Your task to perform on an android device: Search for usb-c to usb-a on ebay.com, select the first entry, and add it to the cart. Image 0: 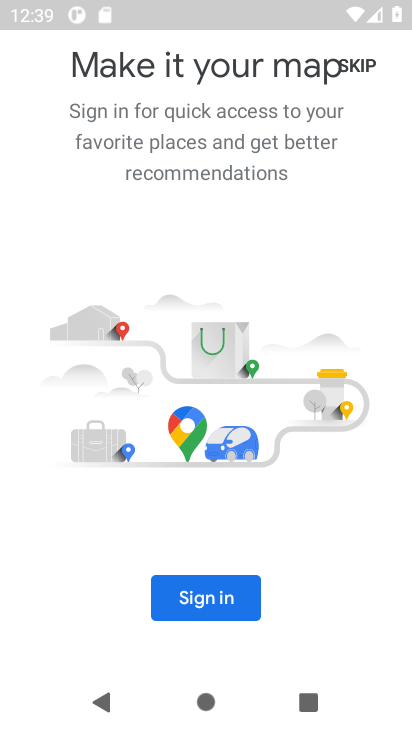
Step 0: press home button
Your task to perform on an android device: Search for usb-c to usb-a on ebay.com, select the first entry, and add it to the cart. Image 1: 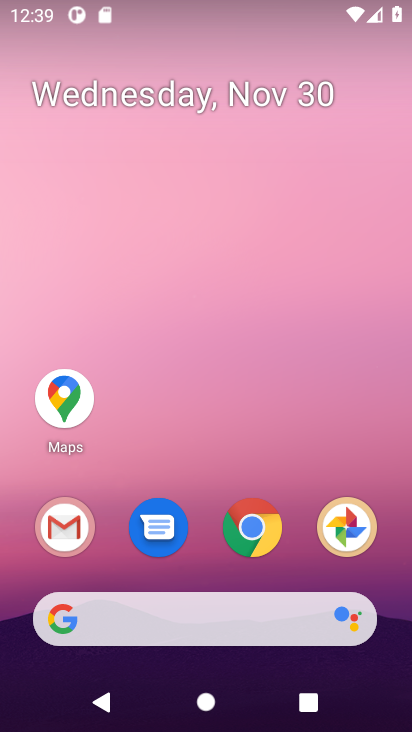
Step 1: click (232, 607)
Your task to perform on an android device: Search for usb-c to usb-a on ebay.com, select the first entry, and add it to the cart. Image 2: 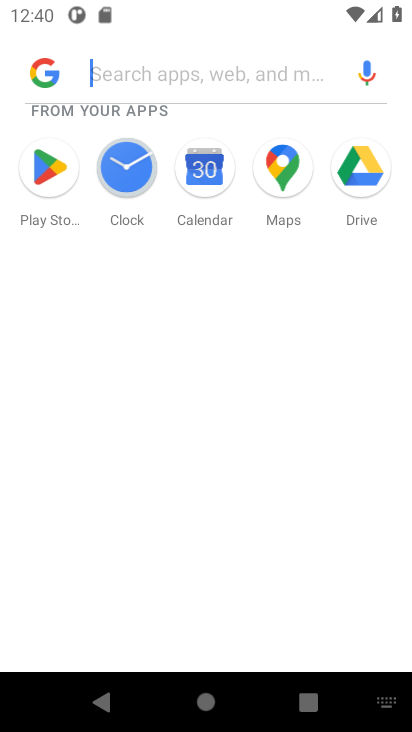
Step 2: press home button
Your task to perform on an android device: Search for usb-c to usb-a on ebay.com, select the first entry, and add it to the cart. Image 3: 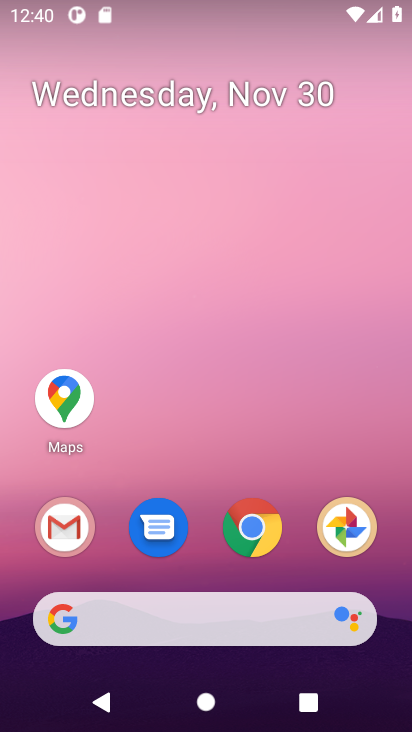
Step 3: click (278, 528)
Your task to perform on an android device: Search for usb-c to usb-a on ebay.com, select the first entry, and add it to the cart. Image 4: 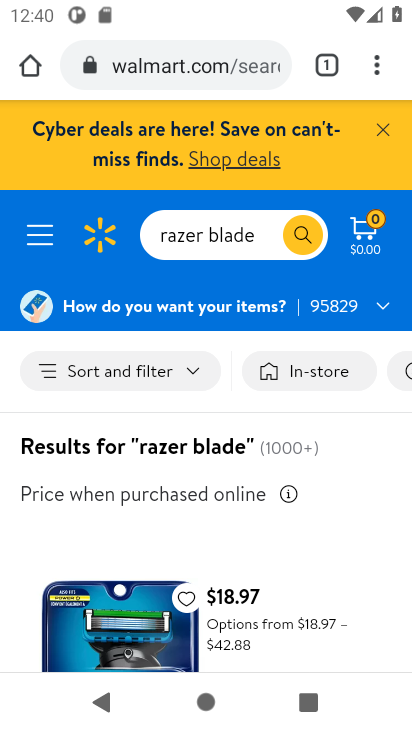
Step 4: click (207, 246)
Your task to perform on an android device: Search for usb-c to usb-a on ebay.com, select the first entry, and add it to the cart. Image 5: 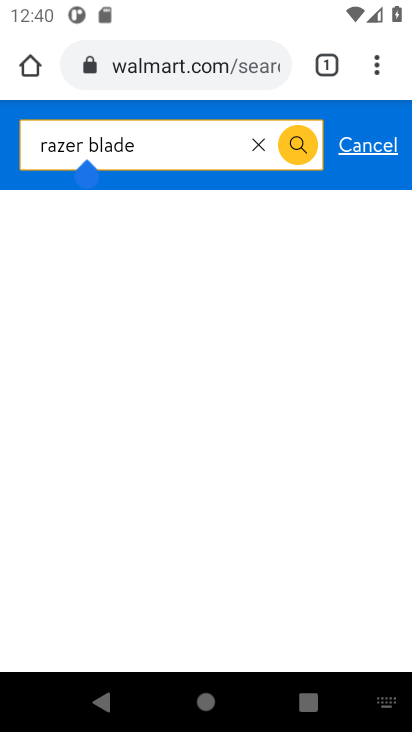
Step 5: click (261, 151)
Your task to perform on an android device: Search for usb-c to usb-a on ebay.com, select the first entry, and add it to the cart. Image 6: 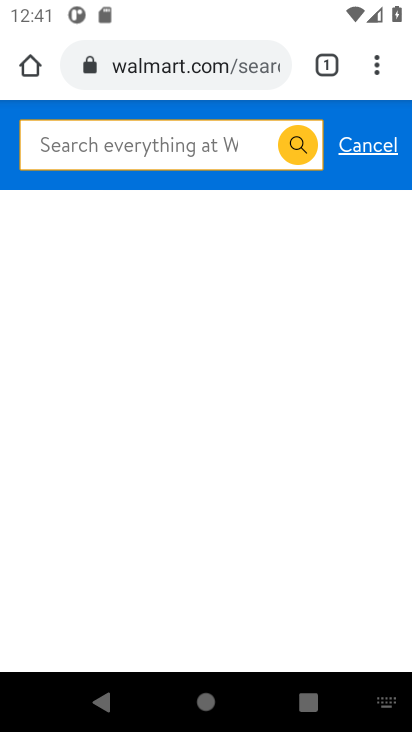
Step 6: type "usb-c to usb-a"
Your task to perform on an android device: Search for usb-c to usb-a on ebay.com, select the first entry, and add it to the cart. Image 7: 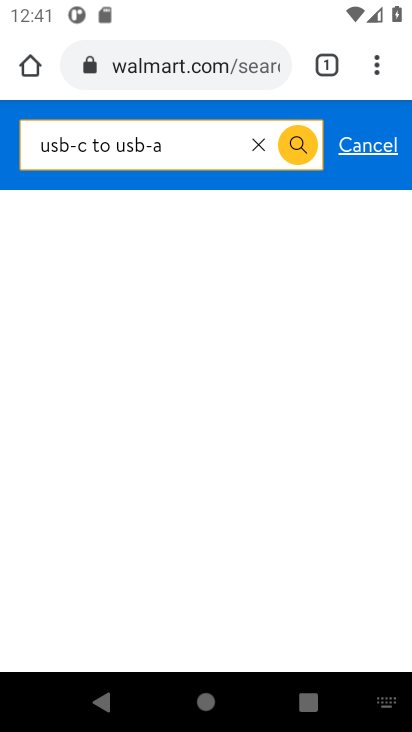
Step 7: click (292, 151)
Your task to perform on an android device: Search for usb-c to usb-a on ebay.com, select the first entry, and add it to the cart. Image 8: 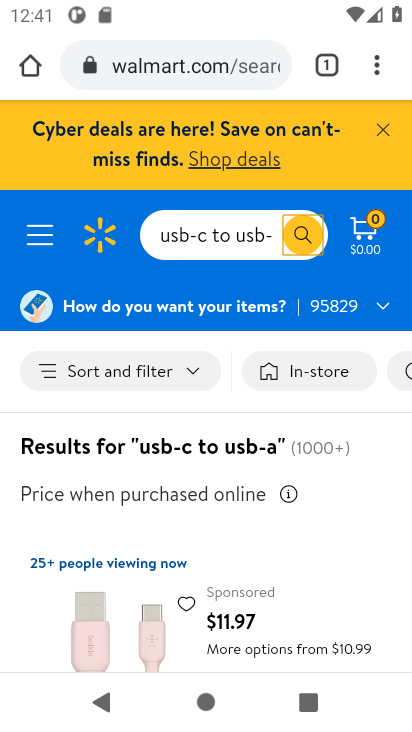
Step 8: click (268, 615)
Your task to perform on an android device: Search for usb-c to usb-a on ebay.com, select the first entry, and add it to the cart. Image 9: 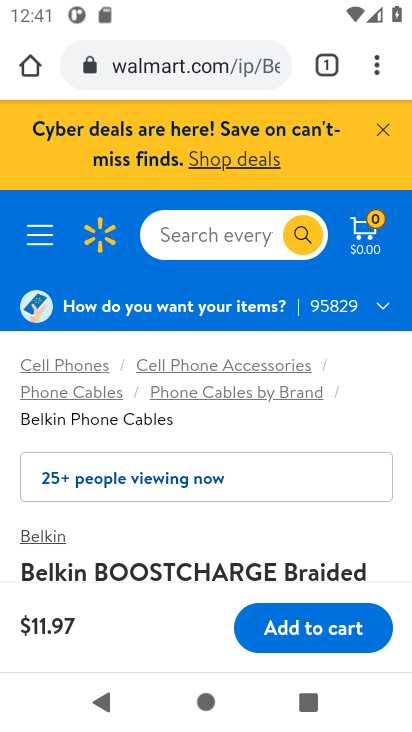
Step 9: click (297, 646)
Your task to perform on an android device: Search for usb-c to usb-a on ebay.com, select the first entry, and add it to the cart. Image 10: 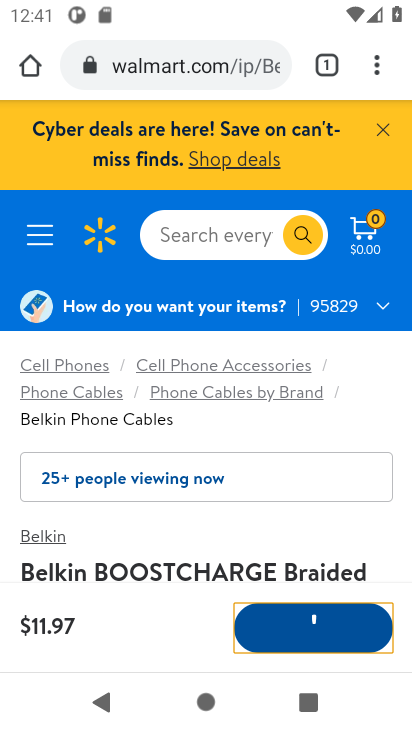
Step 10: task complete